Your task to perform on an android device: What is the recent news? Image 0: 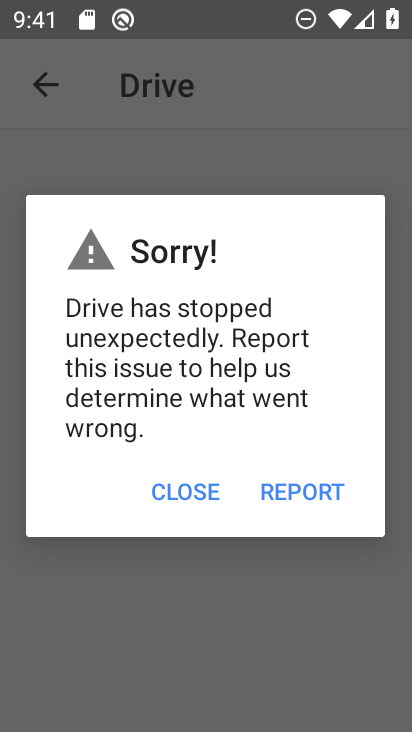
Step 0: press home button
Your task to perform on an android device: What is the recent news? Image 1: 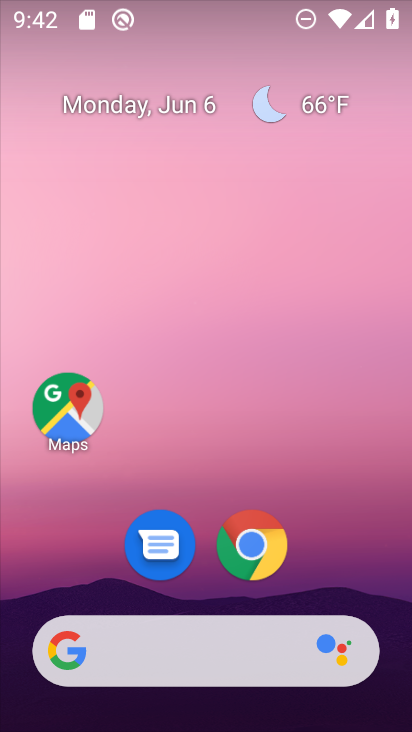
Step 1: click (254, 549)
Your task to perform on an android device: What is the recent news? Image 2: 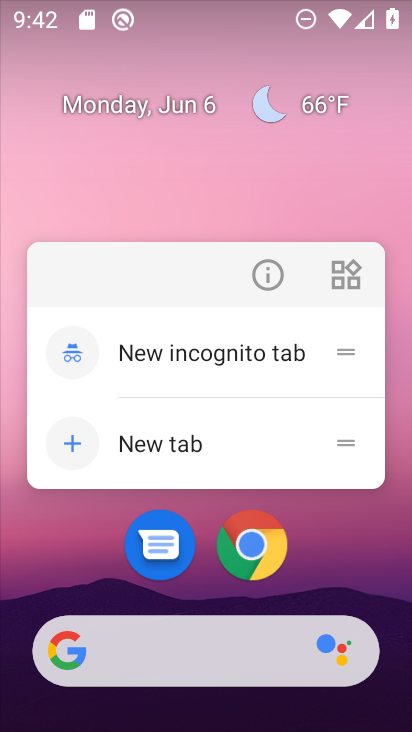
Step 2: click (247, 546)
Your task to perform on an android device: What is the recent news? Image 3: 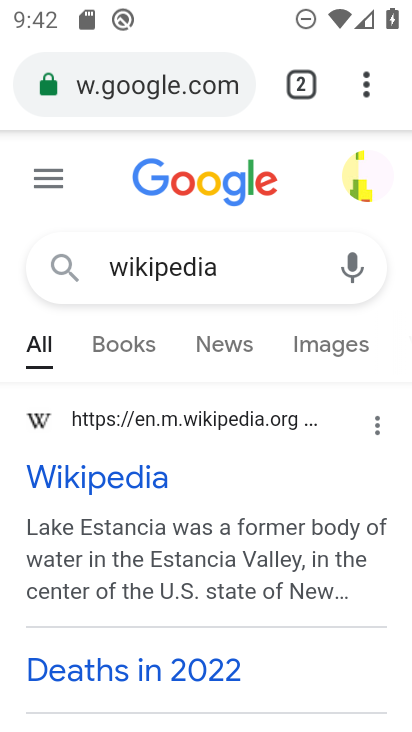
Step 3: click (159, 72)
Your task to perform on an android device: What is the recent news? Image 4: 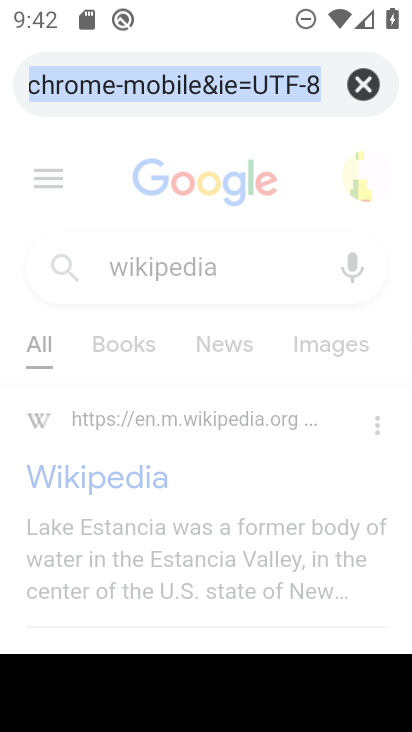
Step 4: type "What is the recent news?"
Your task to perform on an android device: What is the recent news? Image 5: 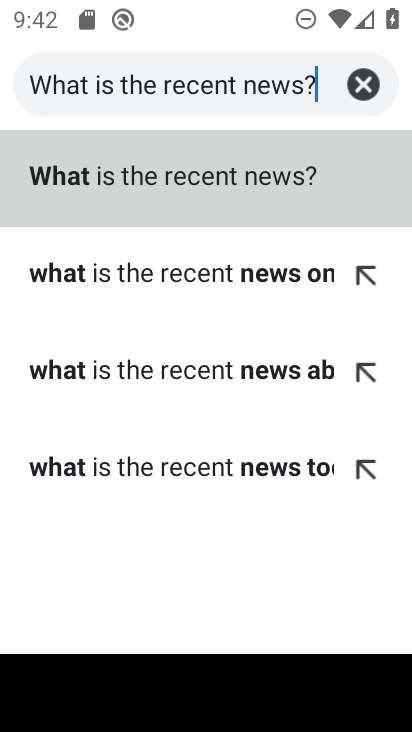
Step 5: click (274, 192)
Your task to perform on an android device: What is the recent news? Image 6: 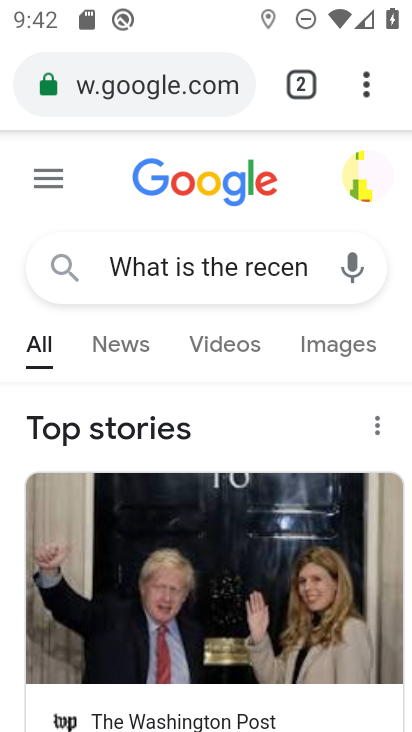
Step 6: task complete